Your task to perform on an android device: check the backup settings in the google photos Image 0: 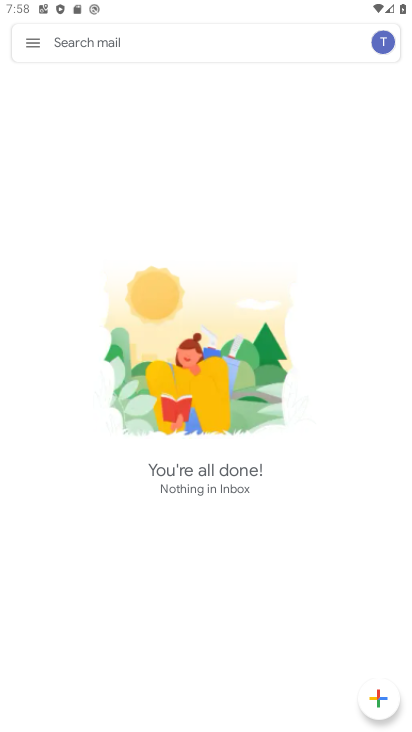
Step 0: press home button
Your task to perform on an android device: check the backup settings in the google photos Image 1: 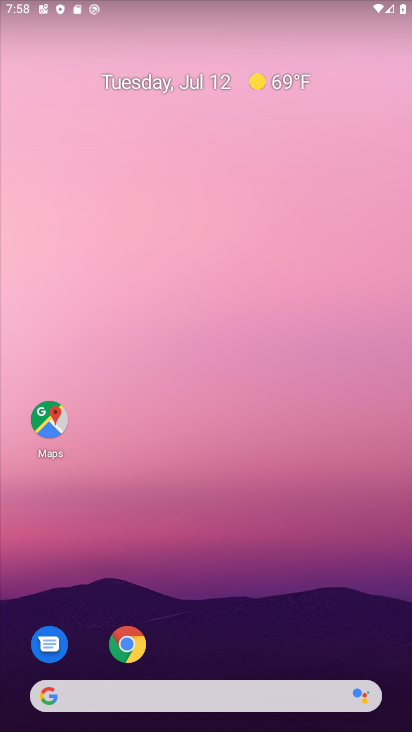
Step 1: drag from (221, 514) to (248, 151)
Your task to perform on an android device: check the backup settings in the google photos Image 2: 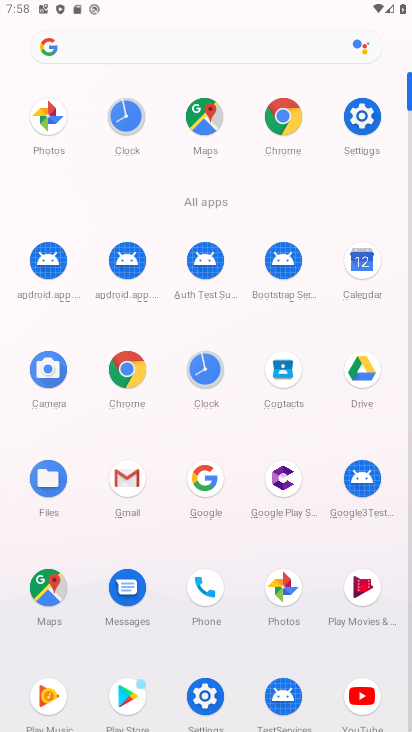
Step 2: click (281, 583)
Your task to perform on an android device: check the backup settings in the google photos Image 3: 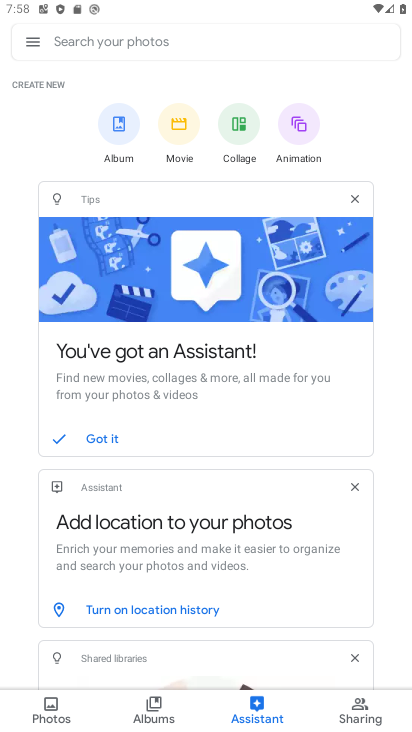
Step 3: click (31, 41)
Your task to perform on an android device: check the backup settings in the google photos Image 4: 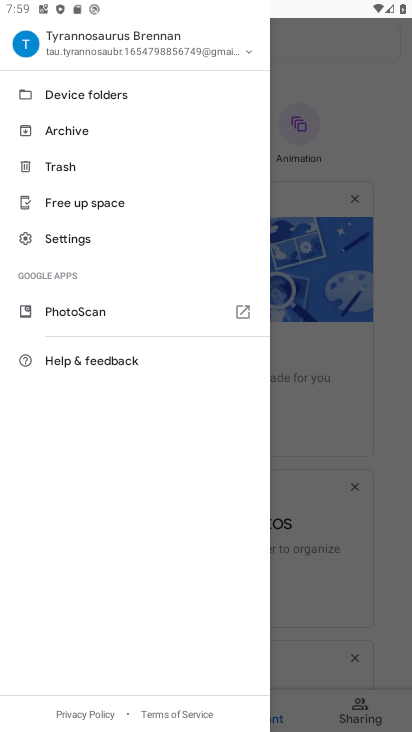
Step 4: click (67, 241)
Your task to perform on an android device: check the backup settings in the google photos Image 5: 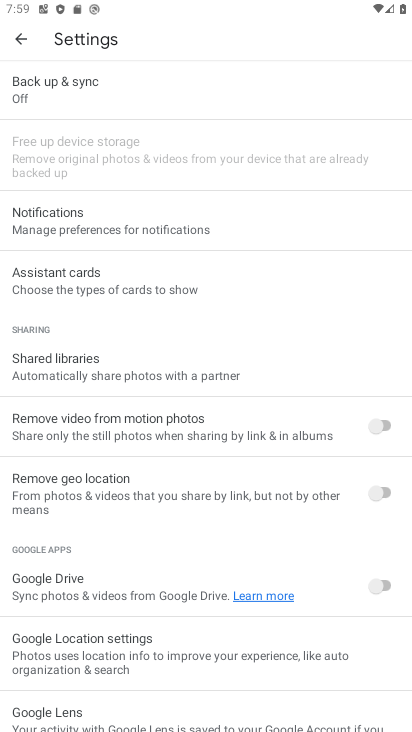
Step 5: click (70, 95)
Your task to perform on an android device: check the backup settings in the google photos Image 6: 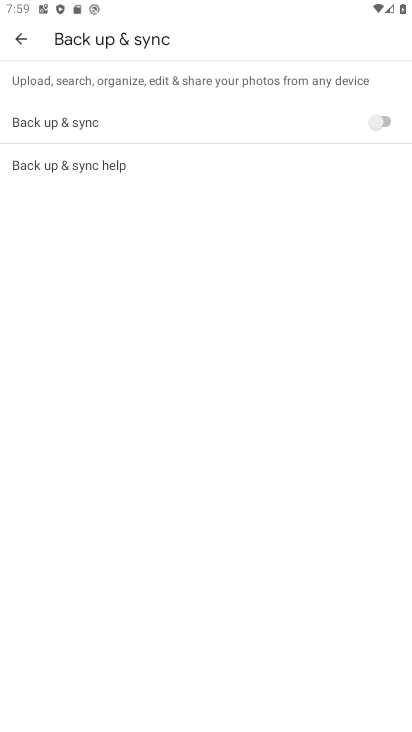
Step 6: click (383, 116)
Your task to perform on an android device: check the backup settings in the google photos Image 7: 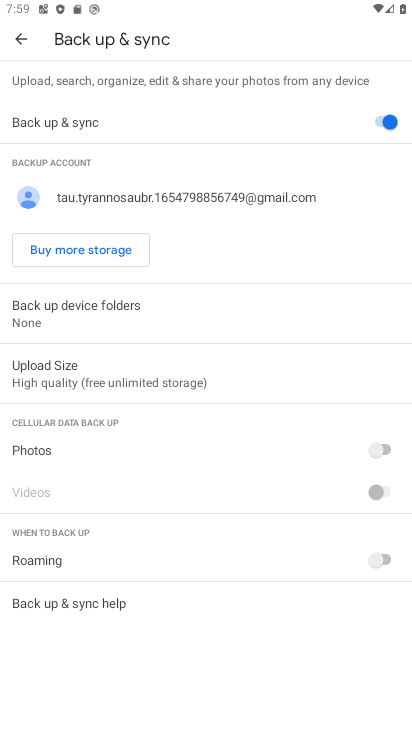
Step 7: task complete